Your task to perform on an android device: open device folders in google photos Image 0: 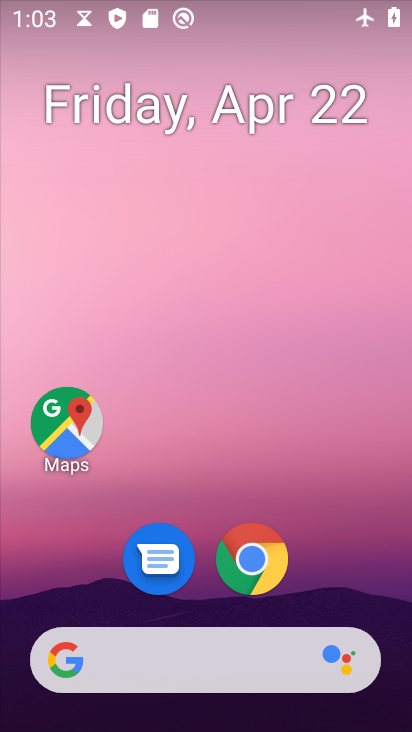
Step 0: drag from (207, 582) to (207, 317)
Your task to perform on an android device: open device folders in google photos Image 1: 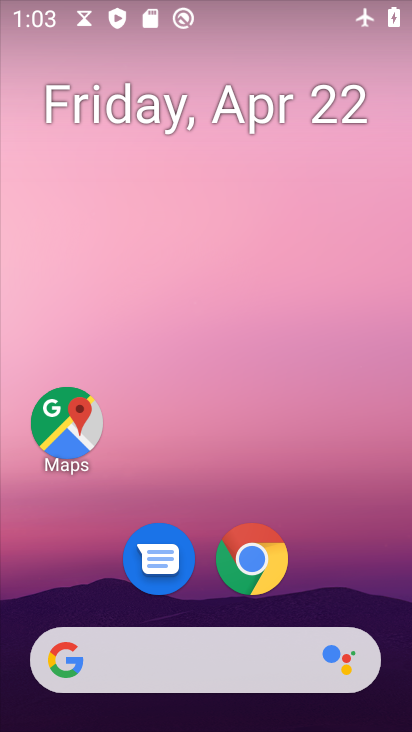
Step 1: drag from (229, 632) to (201, 178)
Your task to perform on an android device: open device folders in google photos Image 2: 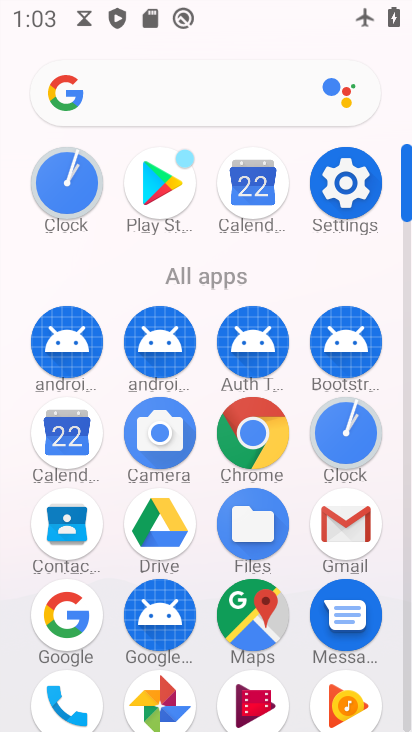
Step 2: click (170, 696)
Your task to perform on an android device: open device folders in google photos Image 3: 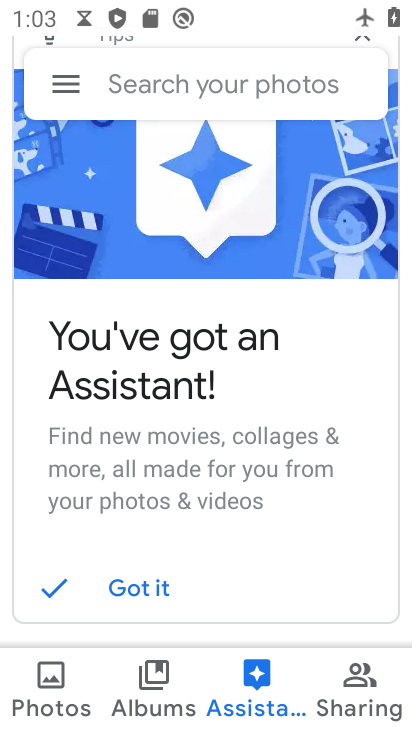
Step 3: click (68, 76)
Your task to perform on an android device: open device folders in google photos Image 4: 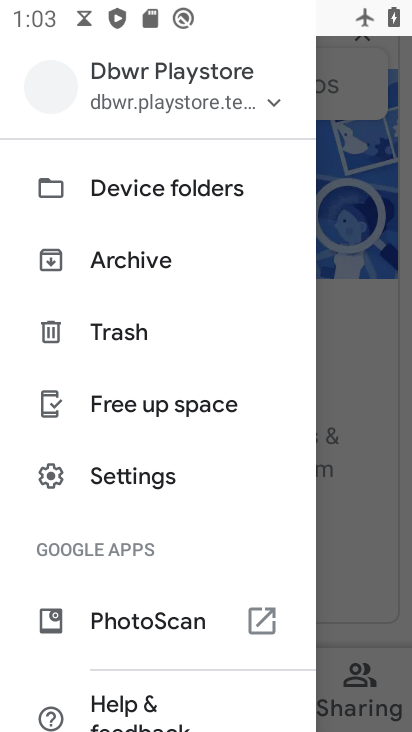
Step 4: click (136, 188)
Your task to perform on an android device: open device folders in google photos Image 5: 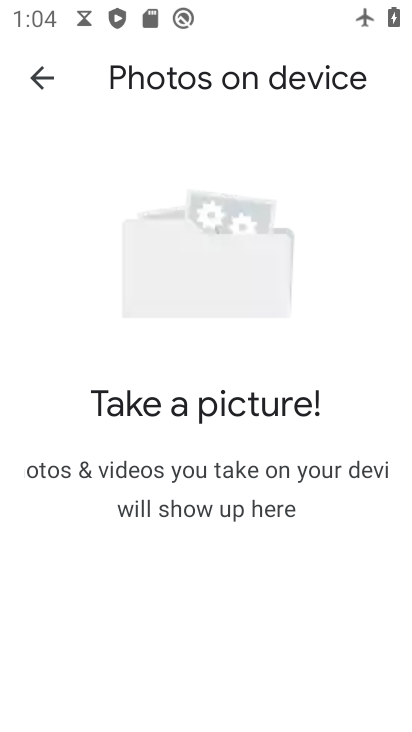
Step 5: task complete